Your task to perform on an android device: Play the last video I watched on Youtube Image 0: 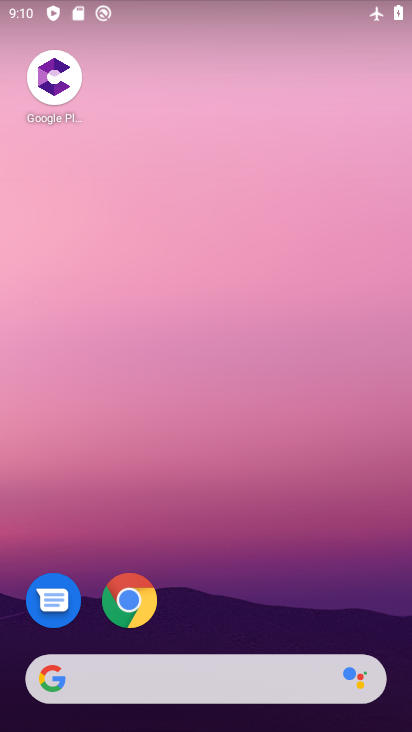
Step 0: drag from (227, 605) to (232, 13)
Your task to perform on an android device: Play the last video I watched on Youtube Image 1: 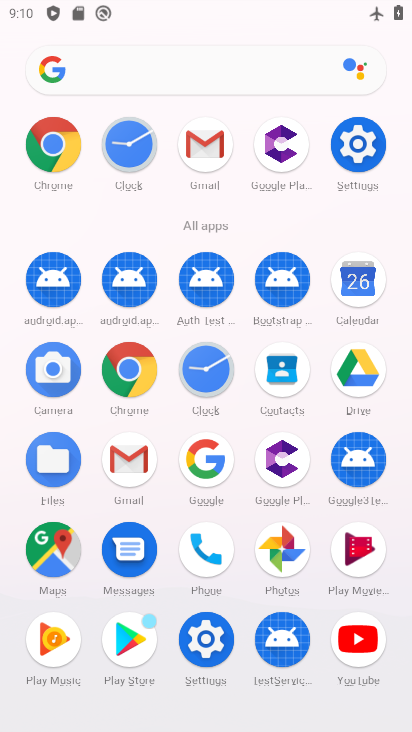
Step 1: click (368, 645)
Your task to perform on an android device: Play the last video I watched on Youtube Image 2: 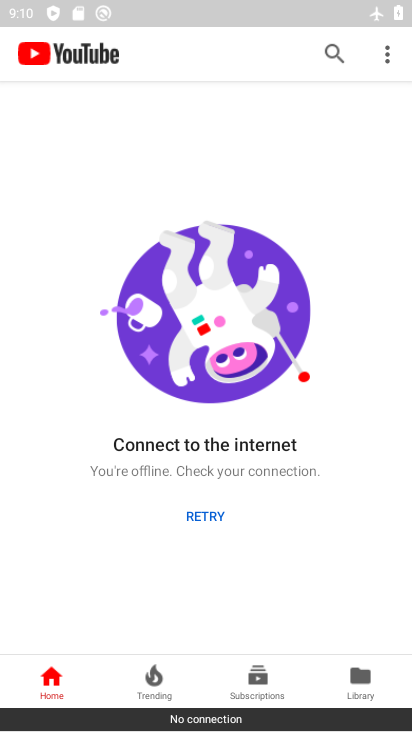
Step 2: click (367, 686)
Your task to perform on an android device: Play the last video I watched on Youtube Image 3: 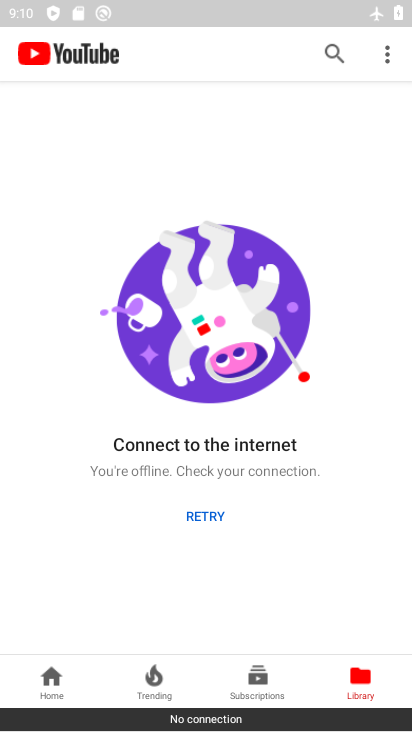
Step 3: task complete